Your task to perform on an android device: Search for acer nitro on ebay, select the first entry, and add it to the cart. Image 0: 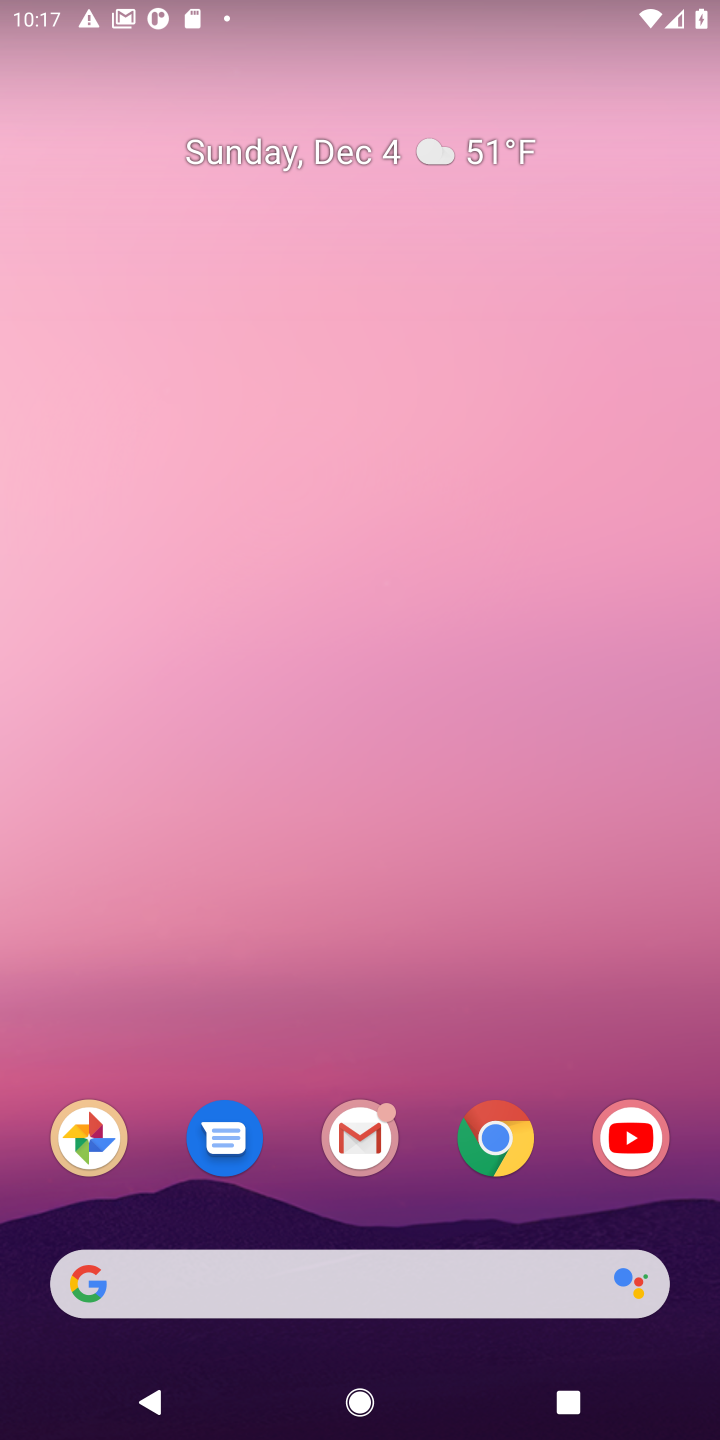
Step 0: click (501, 1123)
Your task to perform on an android device: Search for acer nitro on ebay, select the first entry, and add it to the cart. Image 1: 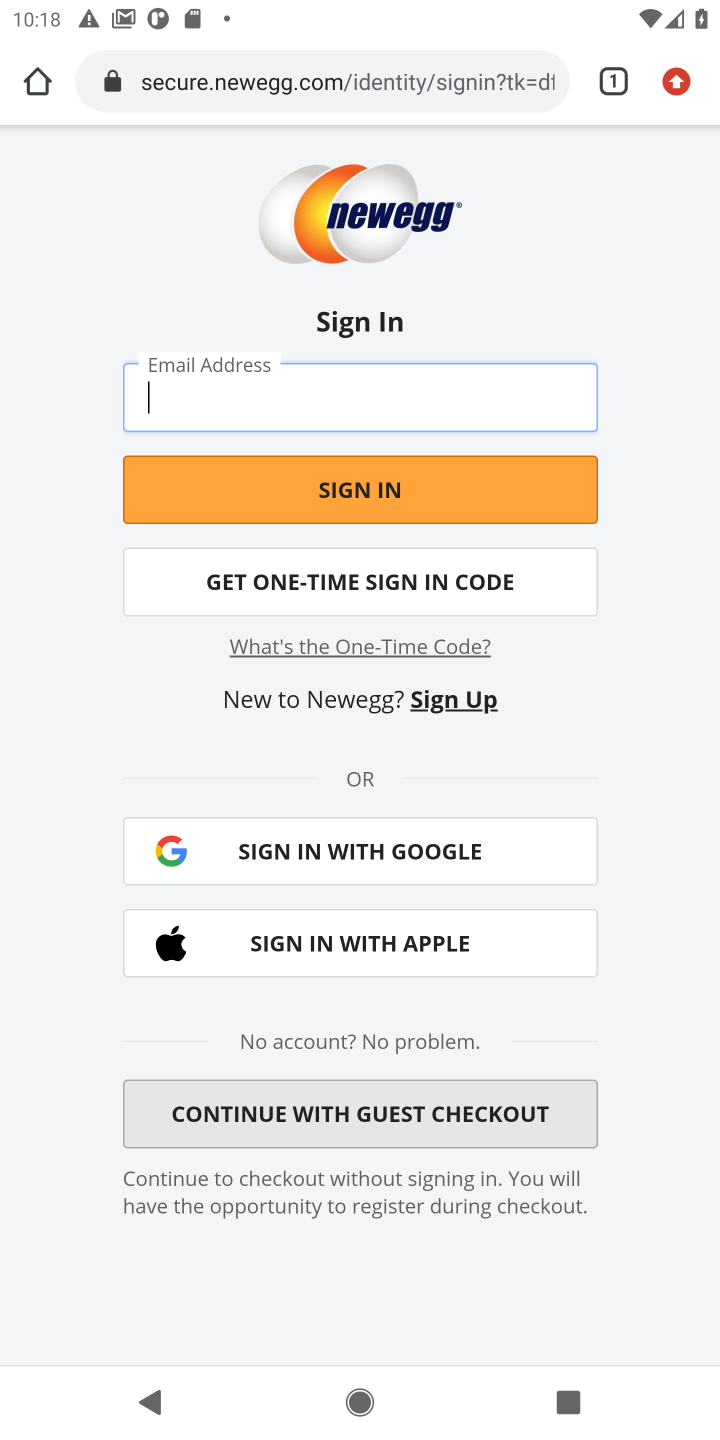
Step 1: click (474, 92)
Your task to perform on an android device: Search for acer nitro on ebay, select the first entry, and add it to the cart. Image 2: 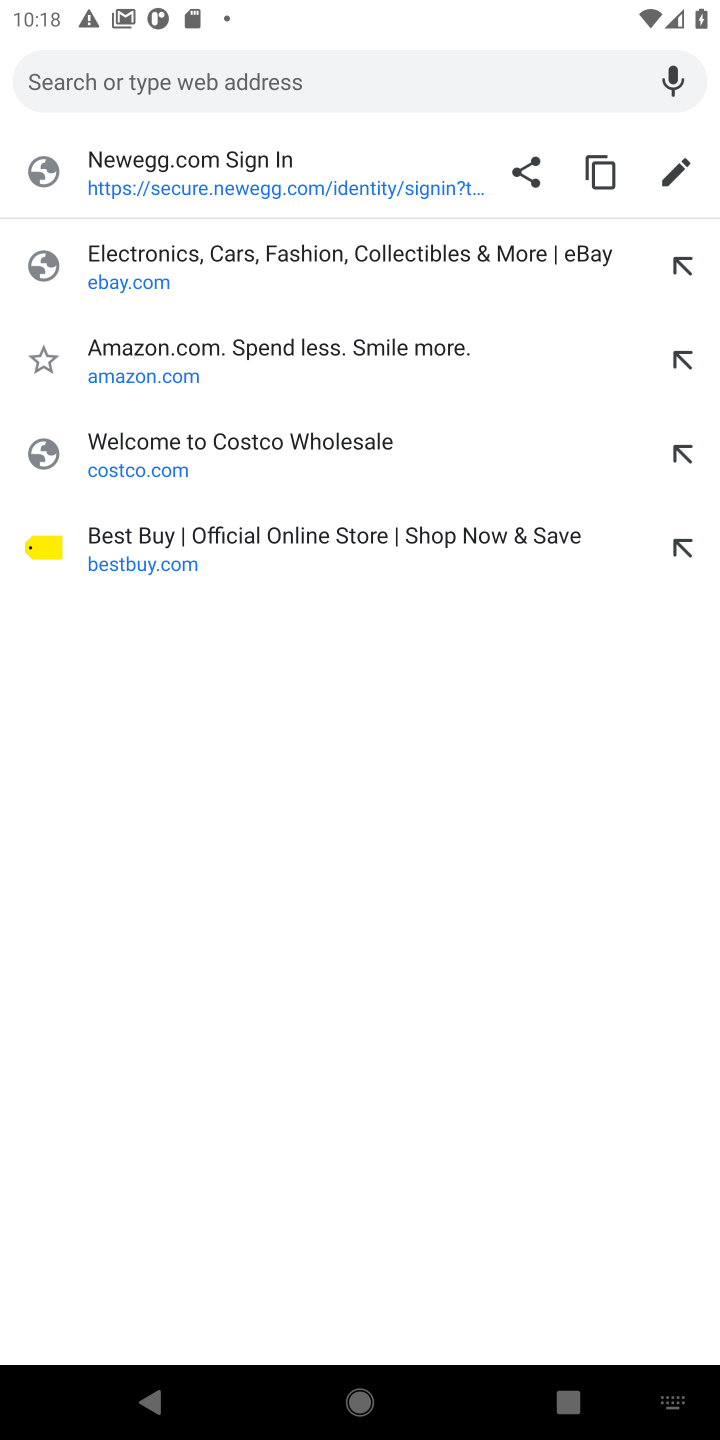
Step 2: click (204, 250)
Your task to perform on an android device: Search for acer nitro on ebay, select the first entry, and add it to the cart. Image 3: 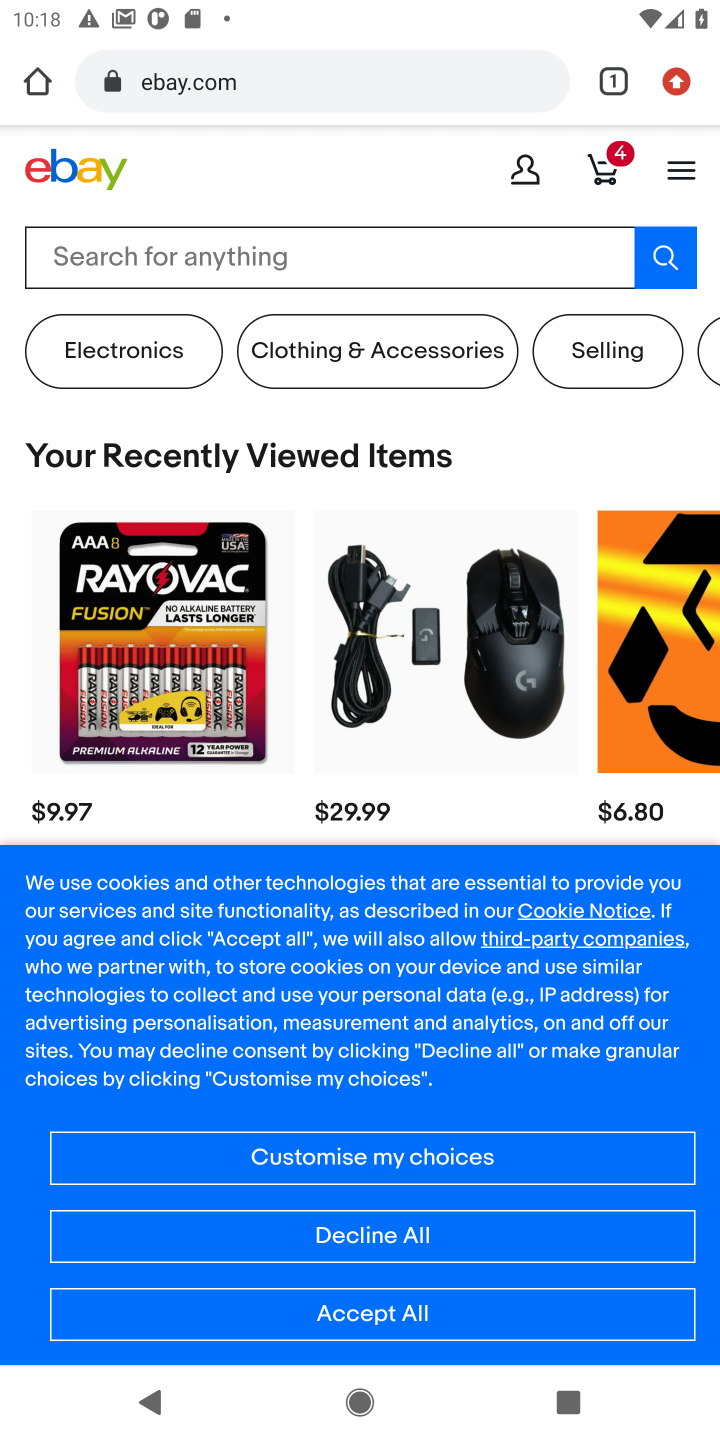
Step 3: click (492, 242)
Your task to perform on an android device: Search for acer nitro on ebay, select the first entry, and add it to the cart. Image 4: 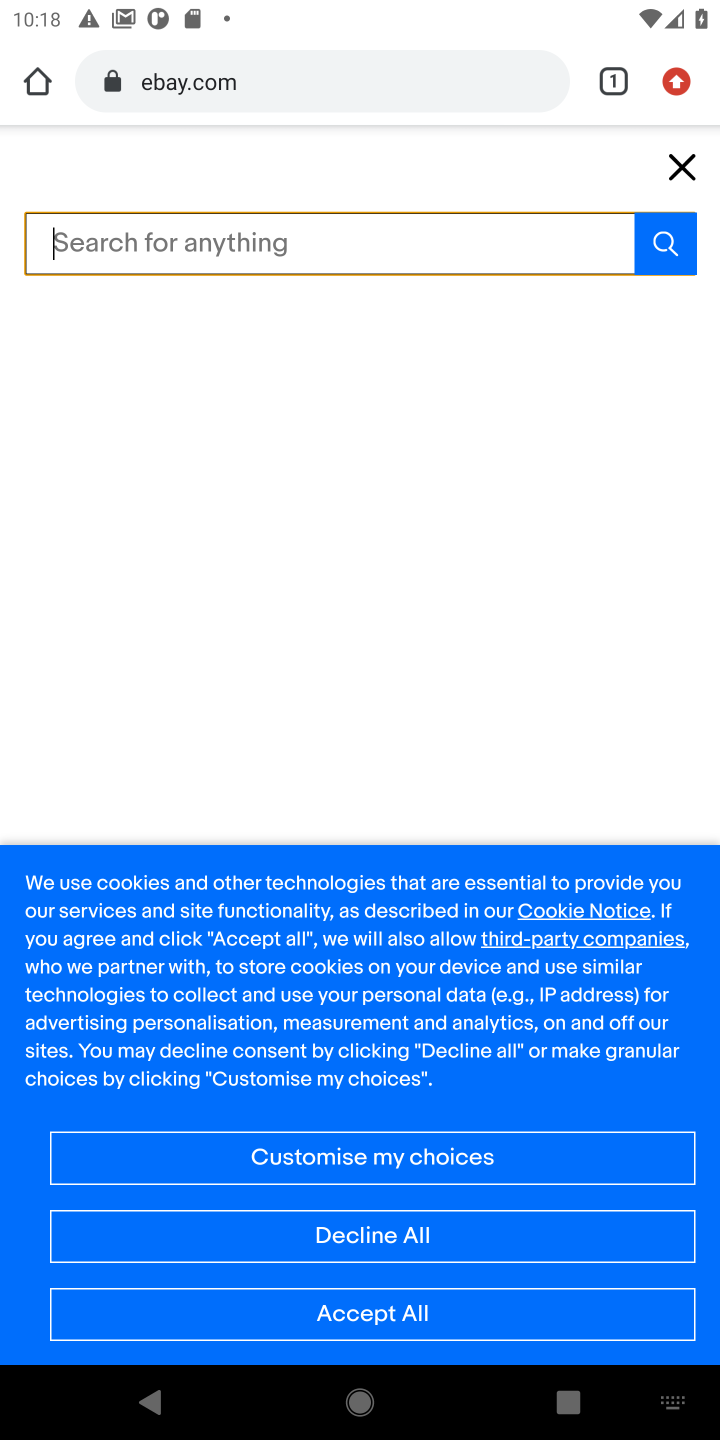
Step 4: type "acer nitro"
Your task to perform on an android device: Search for acer nitro on ebay, select the first entry, and add it to the cart. Image 5: 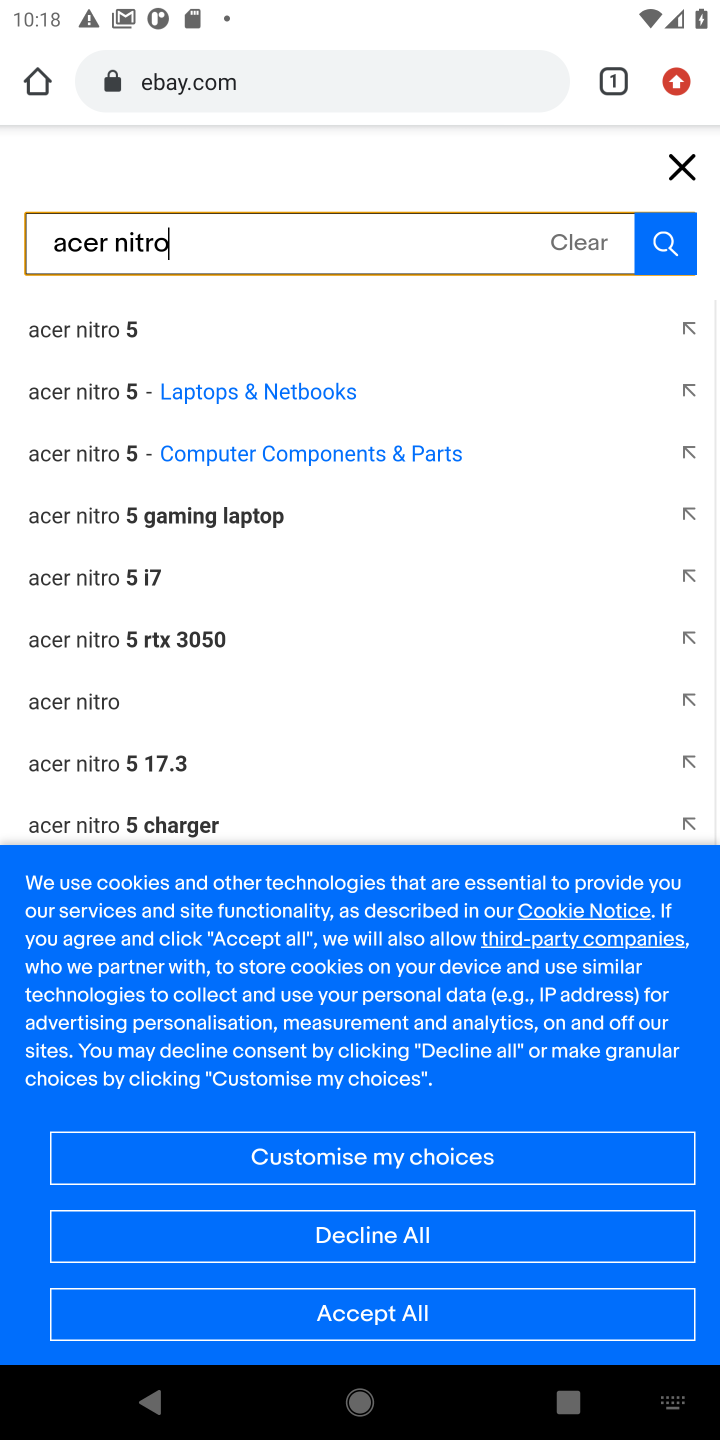
Step 5: press enter
Your task to perform on an android device: Search for acer nitro on ebay, select the first entry, and add it to the cart. Image 6: 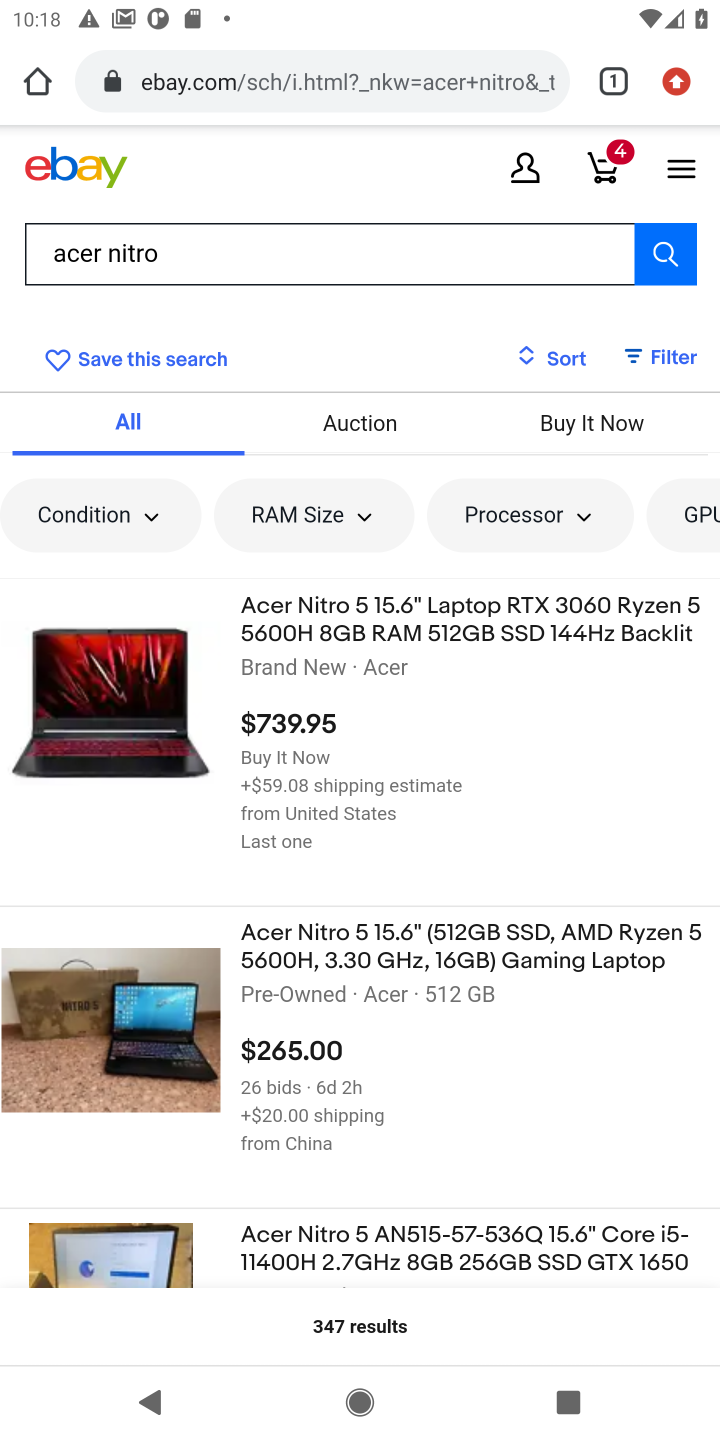
Step 6: click (133, 687)
Your task to perform on an android device: Search for acer nitro on ebay, select the first entry, and add it to the cart. Image 7: 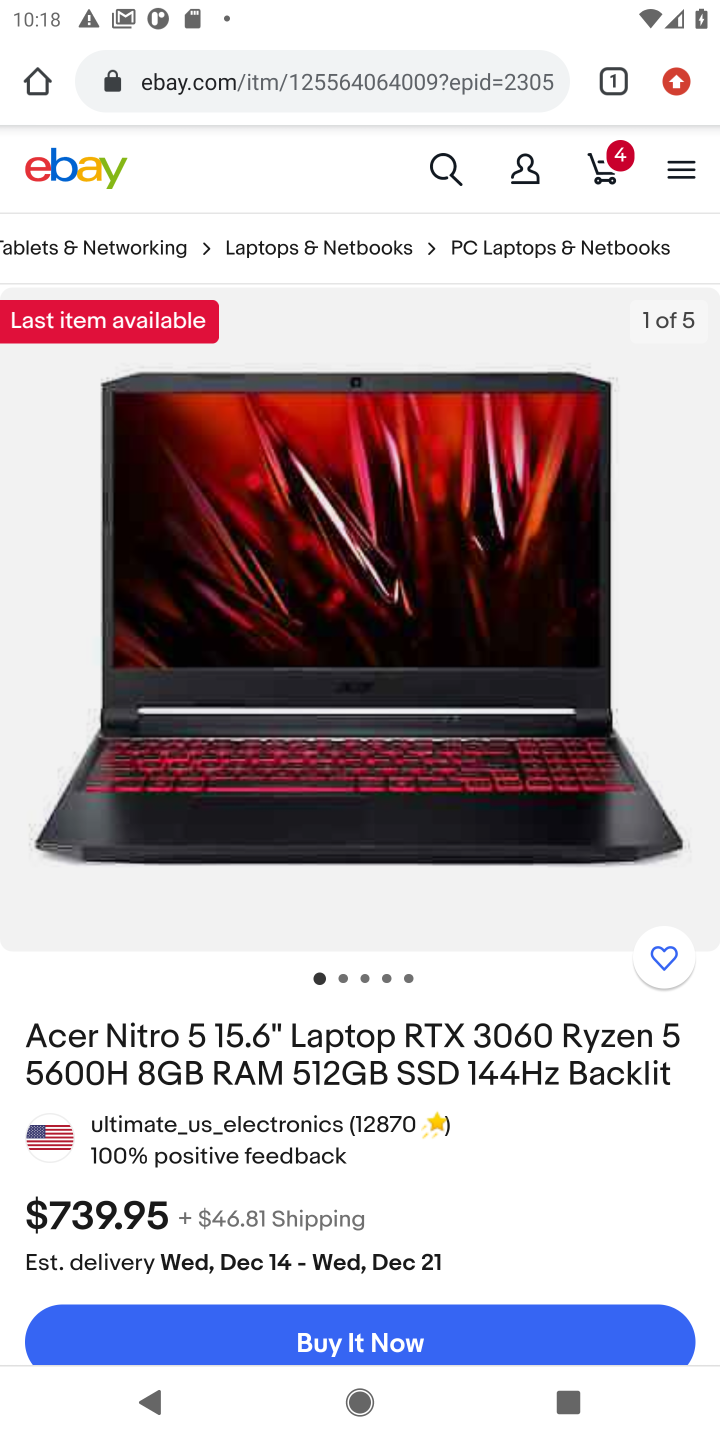
Step 7: drag from (552, 815) to (511, 650)
Your task to perform on an android device: Search for acer nitro on ebay, select the first entry, and add it to the cart. Image 8: 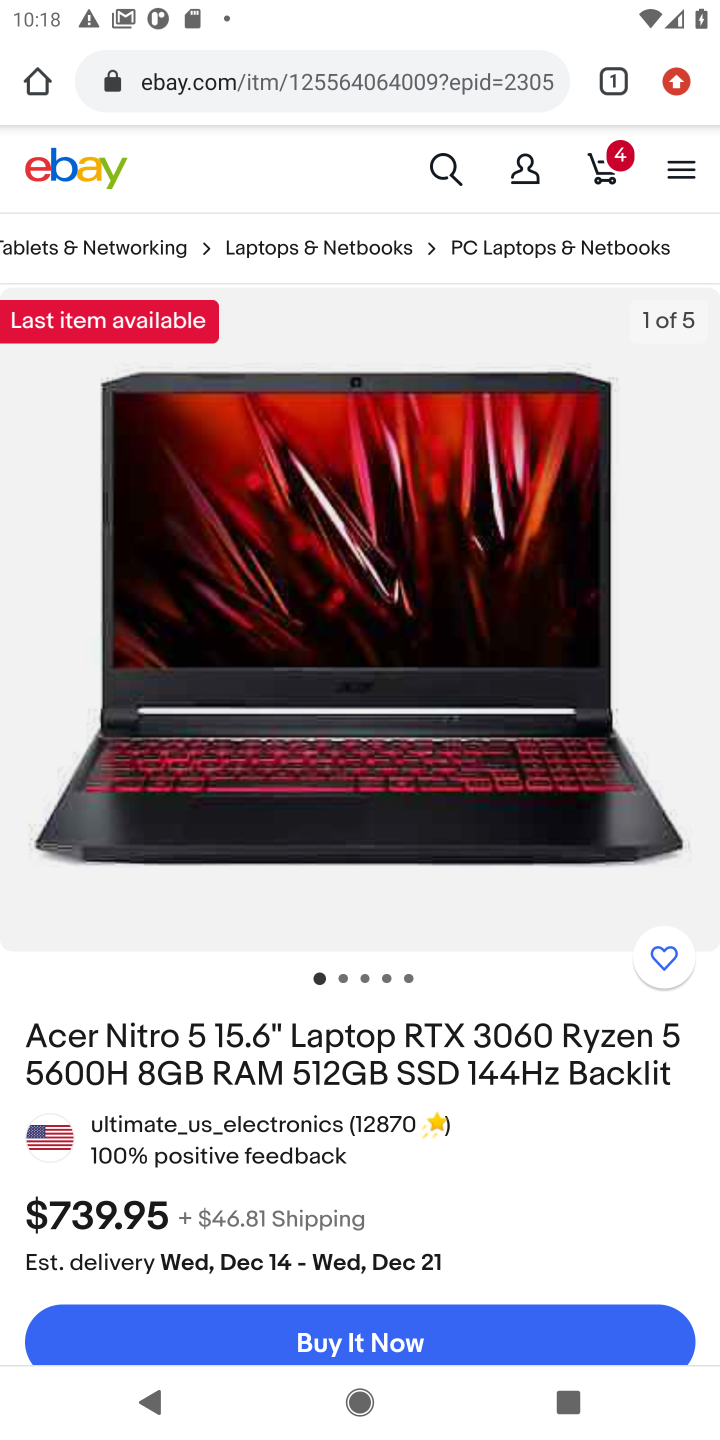
Step 8: drag from (531, 972) to (490, 679)
Your task to perform on an android device: Search for acer nitro on ebay, select the first entry, and add it to the cart. Image 9: 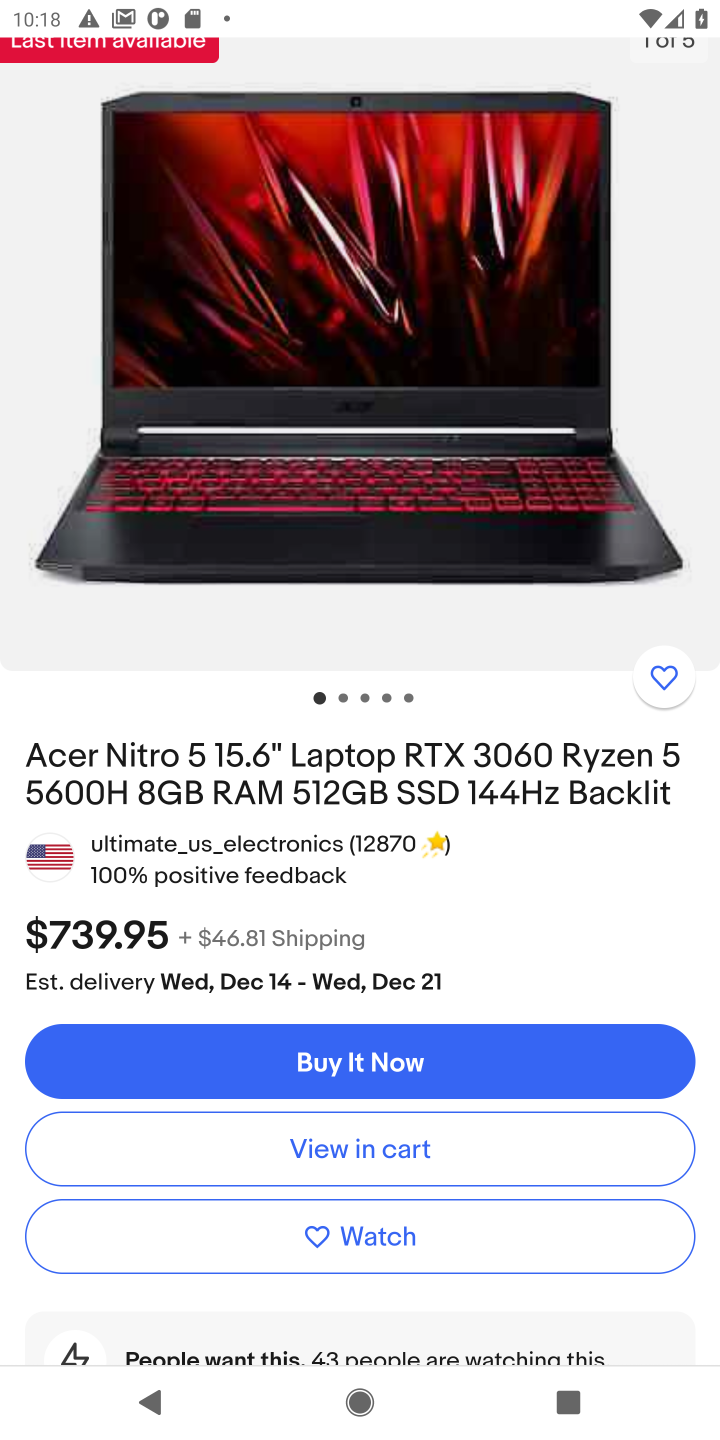
Step 9: press back button
Your task to perform on an android device: Search for acer nitro on ebay, select the first entry, and add it to the cart. Image 10: 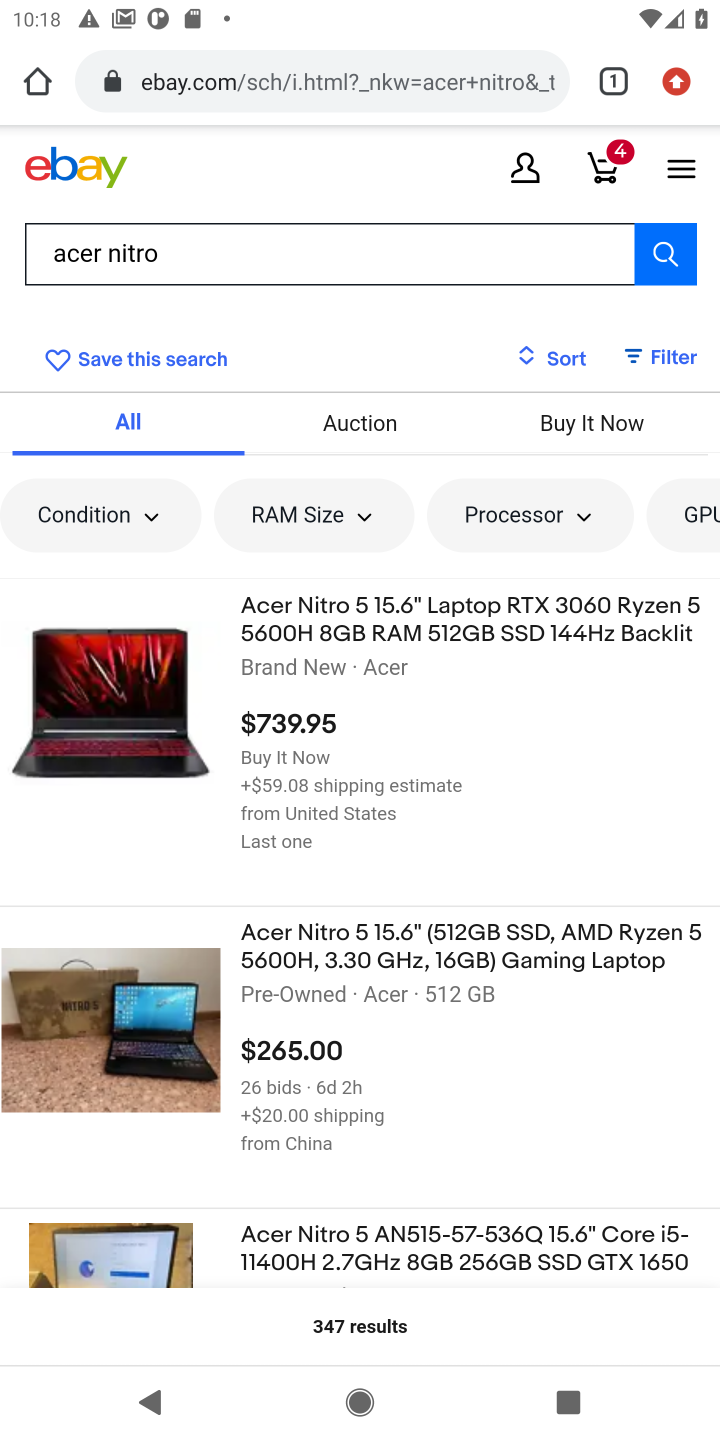
Step 10: click (93, 1005)
Your task to perform on an android device: Search for acer nitro on ebay, select the first entry, and add it to the cart. Image 11: 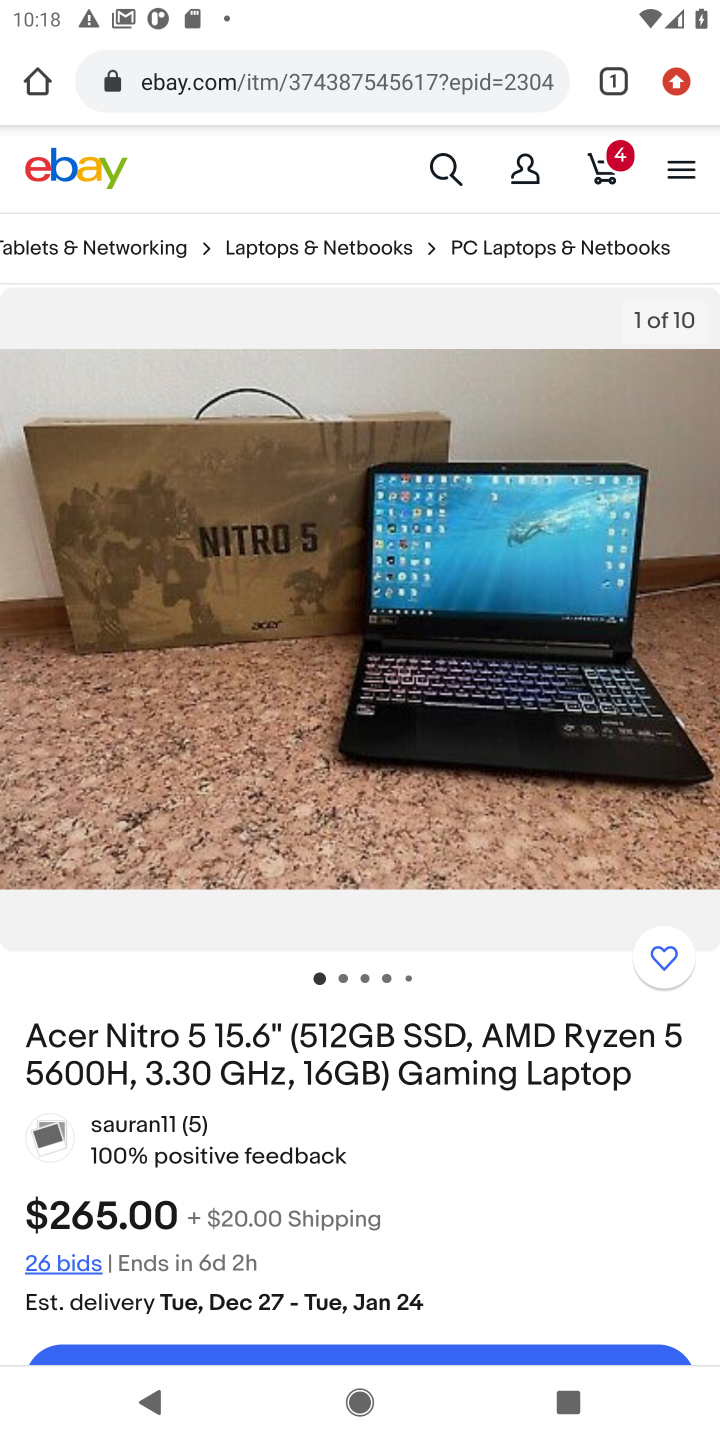
Step 11: drag from (463, 840) to (493, 657)
Your task to perform on an android device: Search for acer nitro on ebay, select the first entry, and add it to the cart. Image 12: 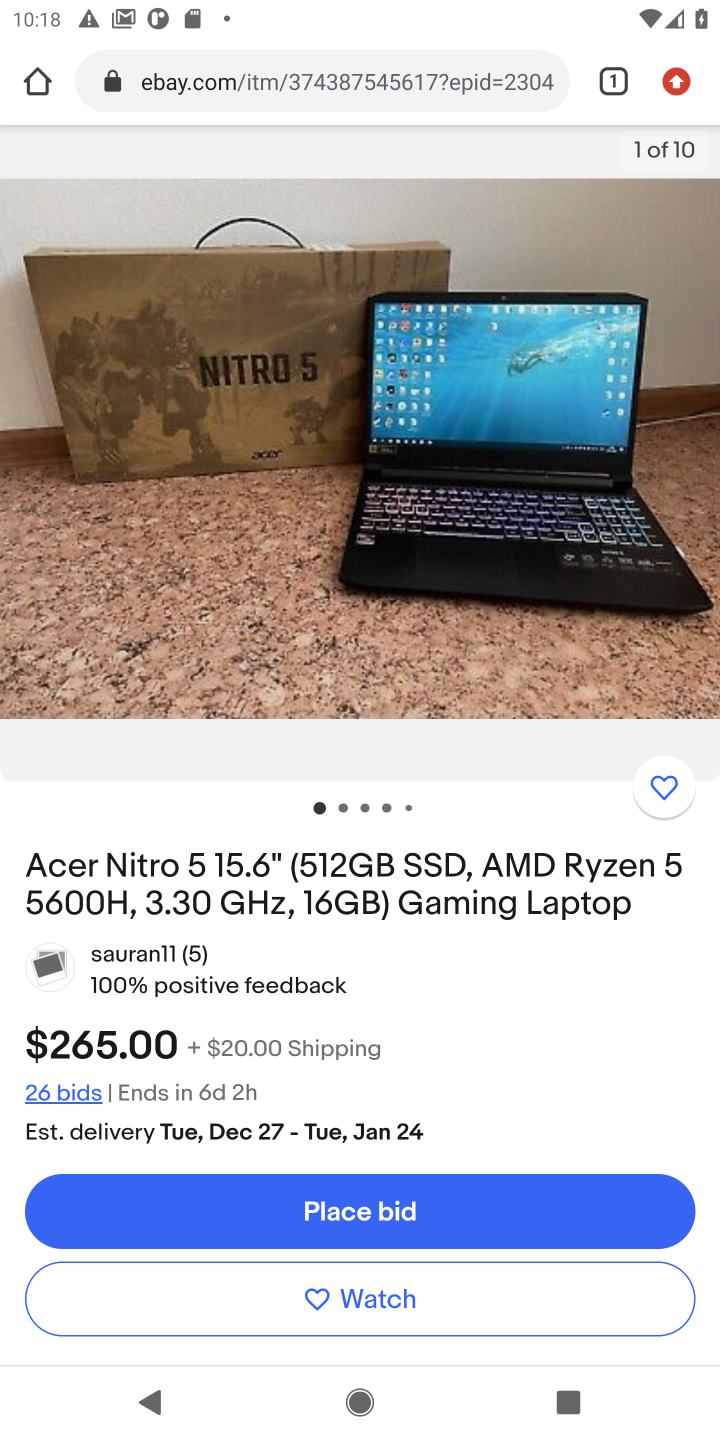
Step 12: press back button
Your task to perform on an android device: Search for acer nitro on ebay, select the first entry, and add it to the cart. Image 13: 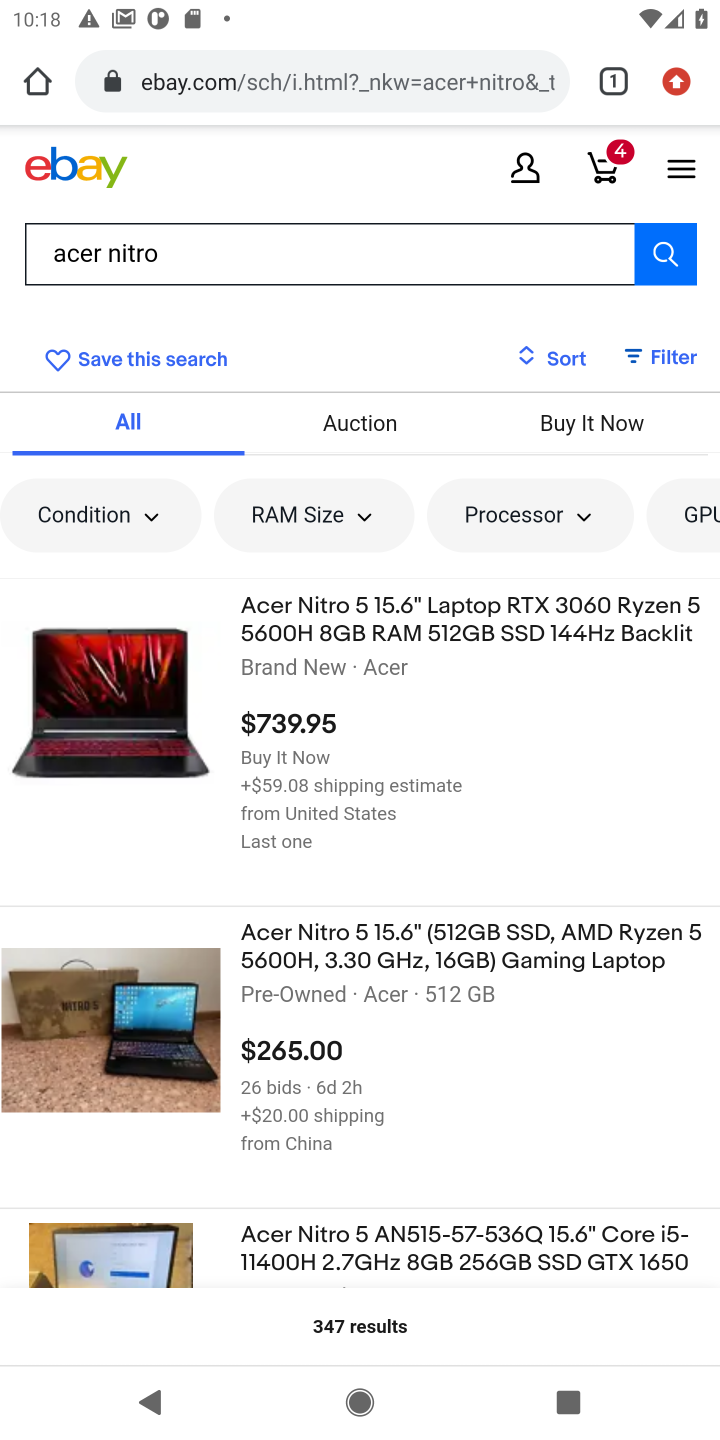
Step 13: drag from (513, 1077) to (519, 558)
Your task to perform on an android device: Search for acer nitro on ebay, select the first entry, and add it to the cart. Image 14: 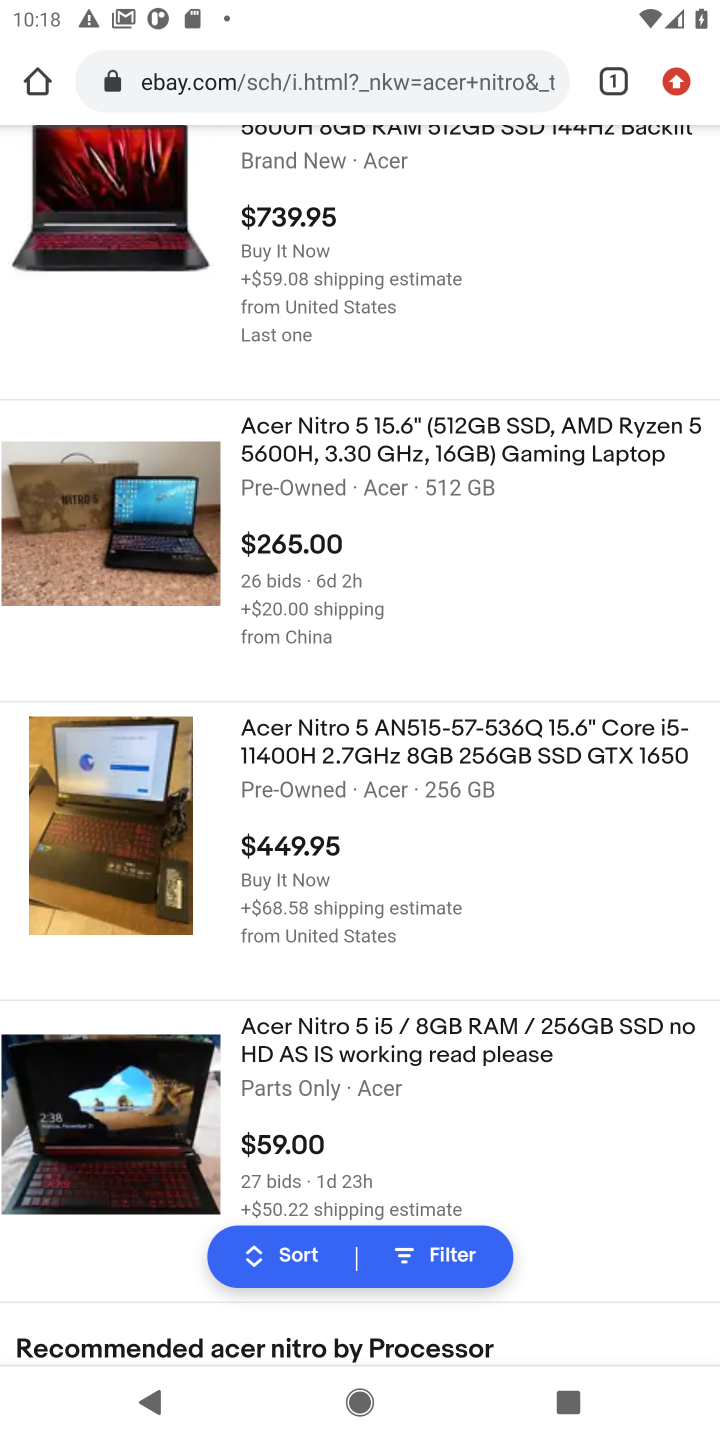
Step 14: click (129, 826)
Your task to perform on an android device: Search for acer nitro on ebay, select the first entry, and add it to the cart. Image 15: 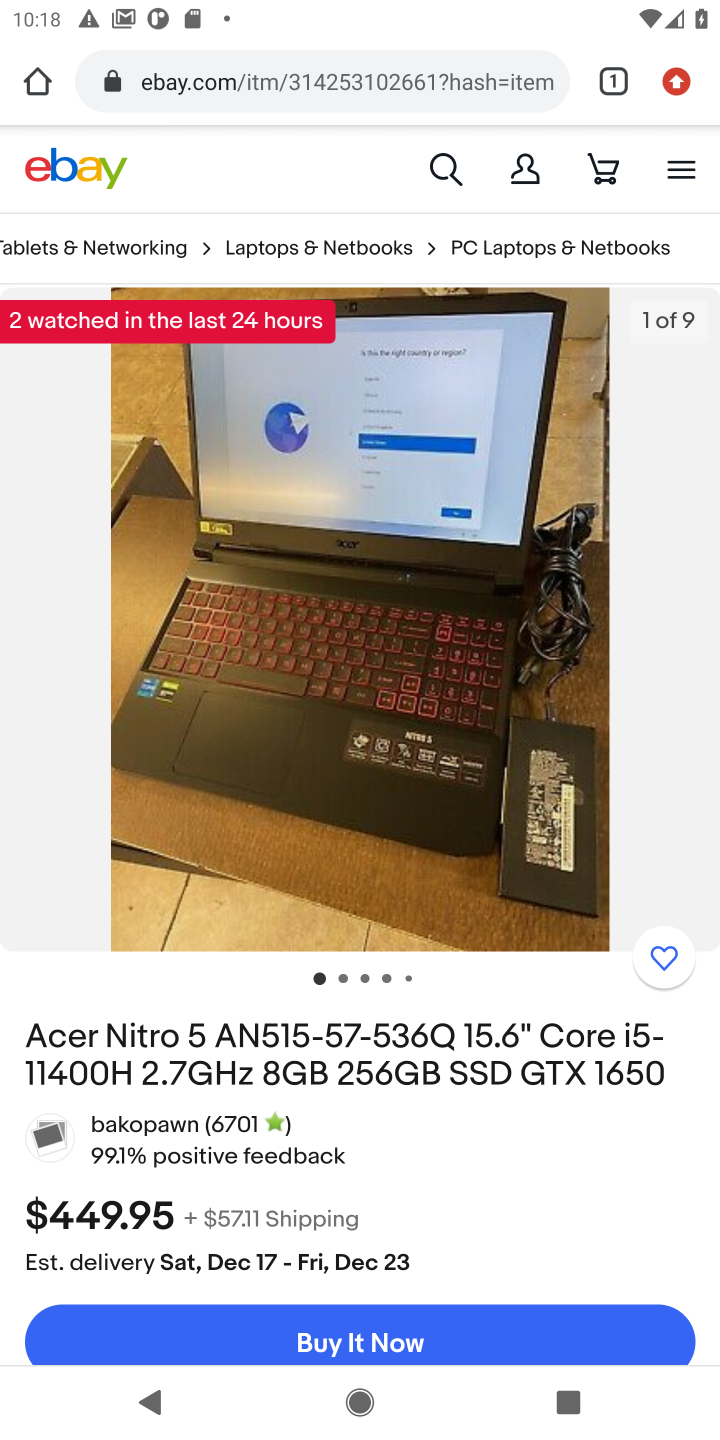
Step 15: drag from (622, 1151) to (526, 670)
Your task to perform on an android device: Search for acer nitro on ebay, select the first entry, and add it to the cart. Image 16: 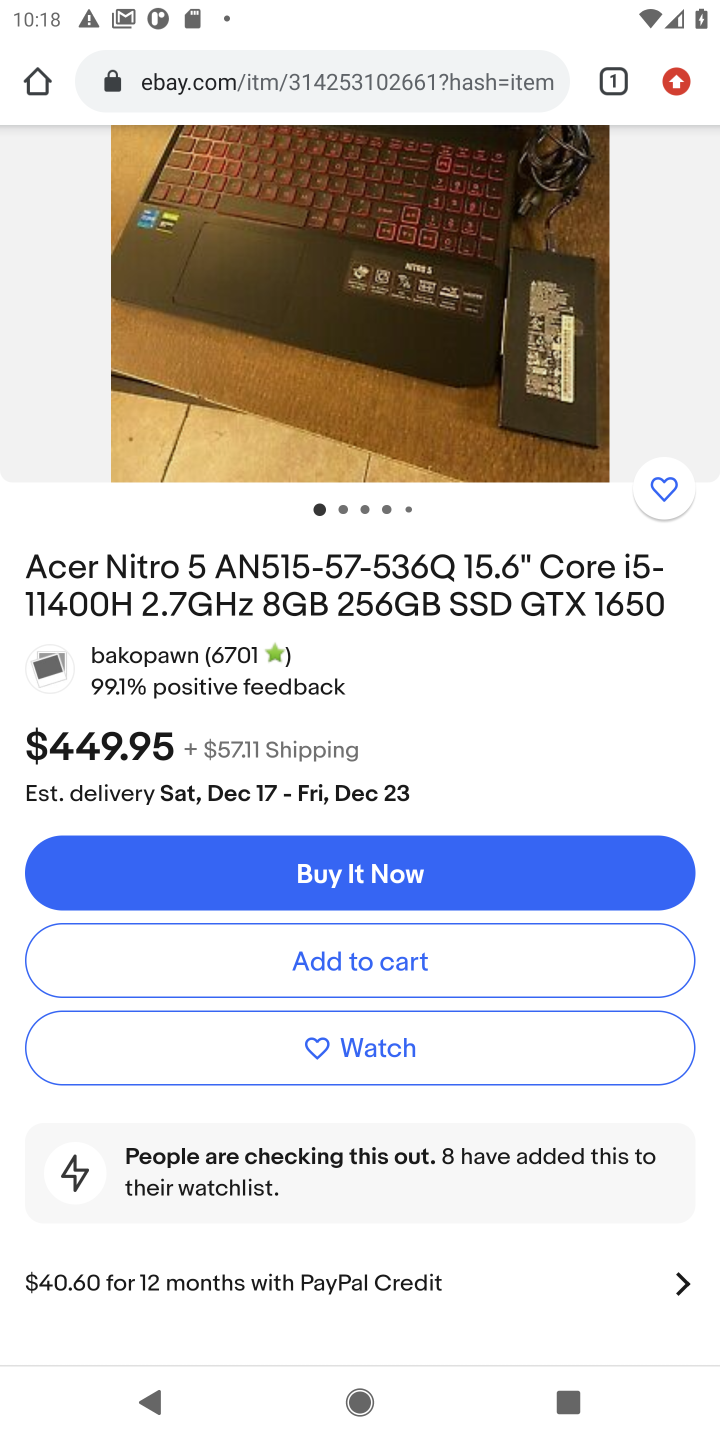
Step 16: click (346, 969)
Your task to perform on an android device: Search for acer nitro on ebay, select the first entry, and add it to the cart. Image 17: 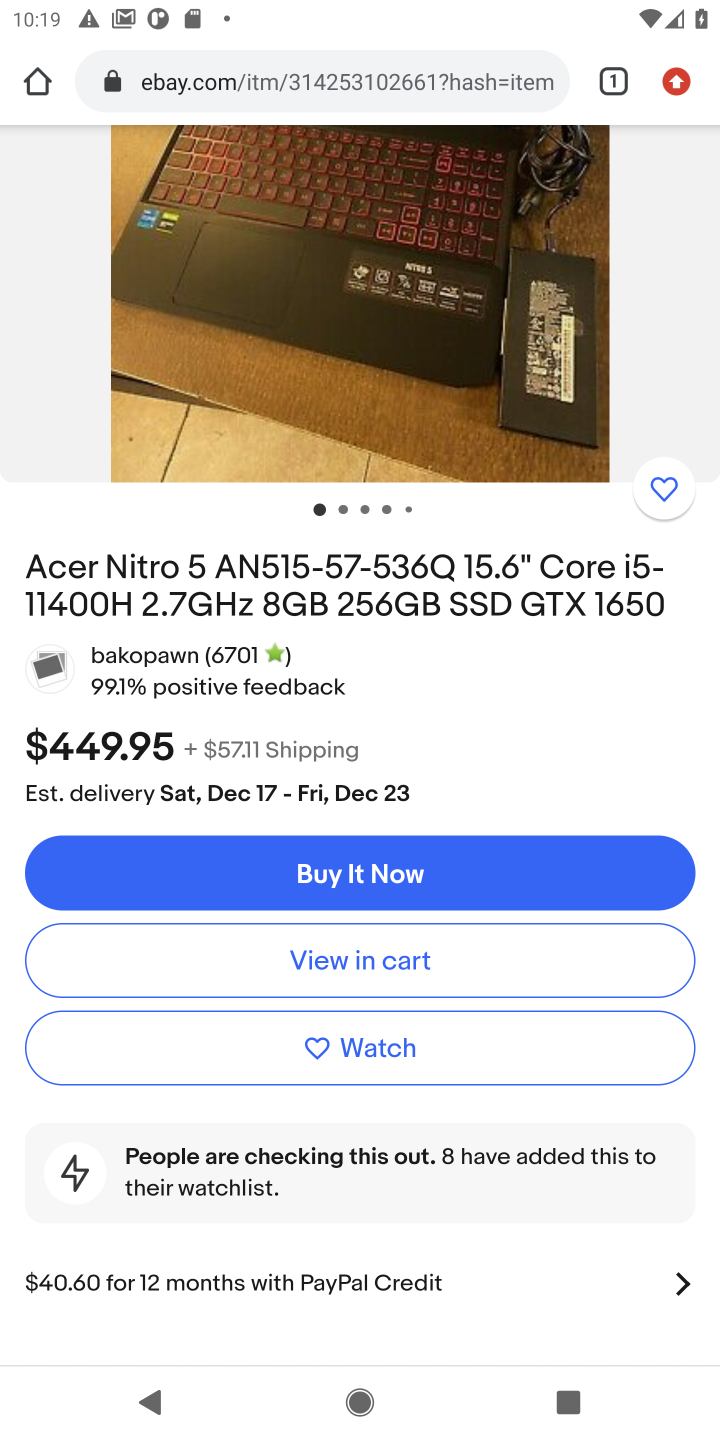
Step 17: click (346, 969)
Your task to perform on an android device: Search for acer nitro on ebay, select the first entry, and add it to the cart. Image 18: 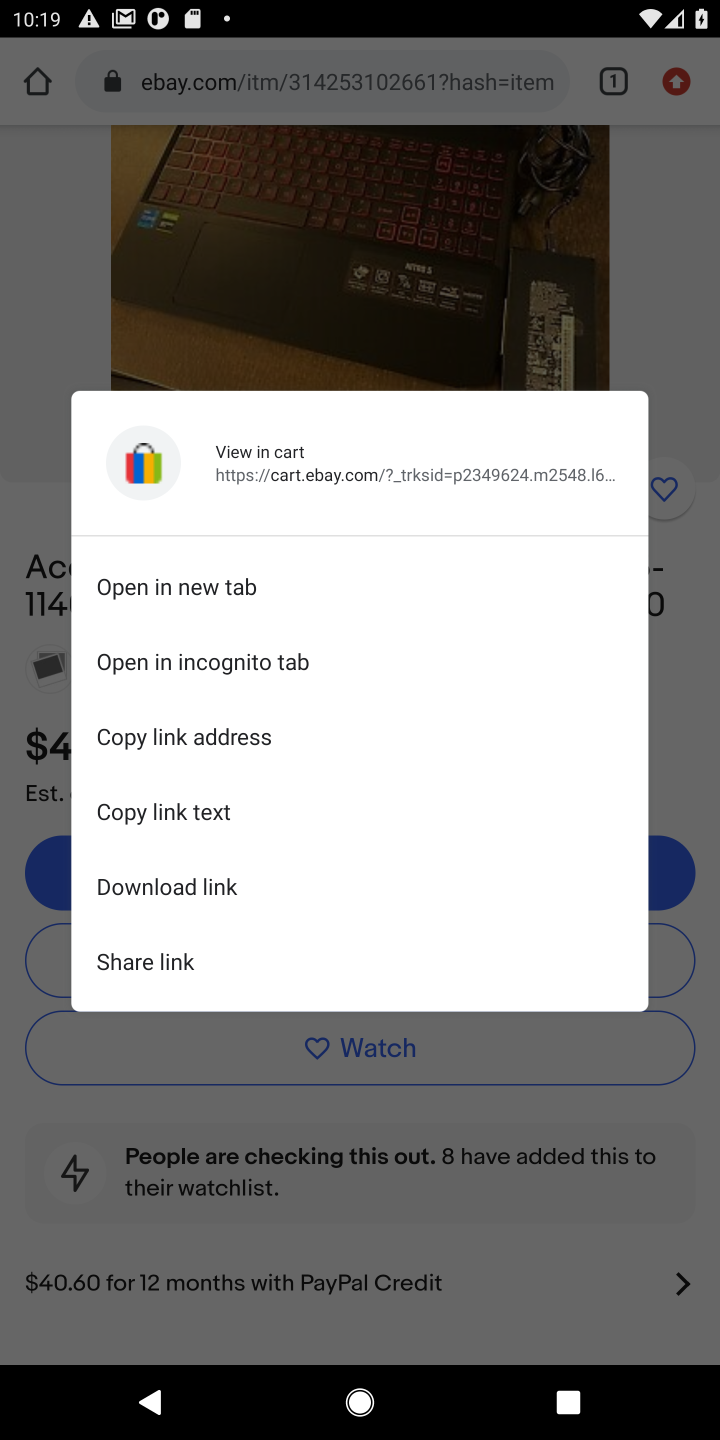
Step 18: click (668, 971)
Your task to perform on an android device: Search for acer nitro on ebay, select the first entry, and add it to the cart. Image 19: 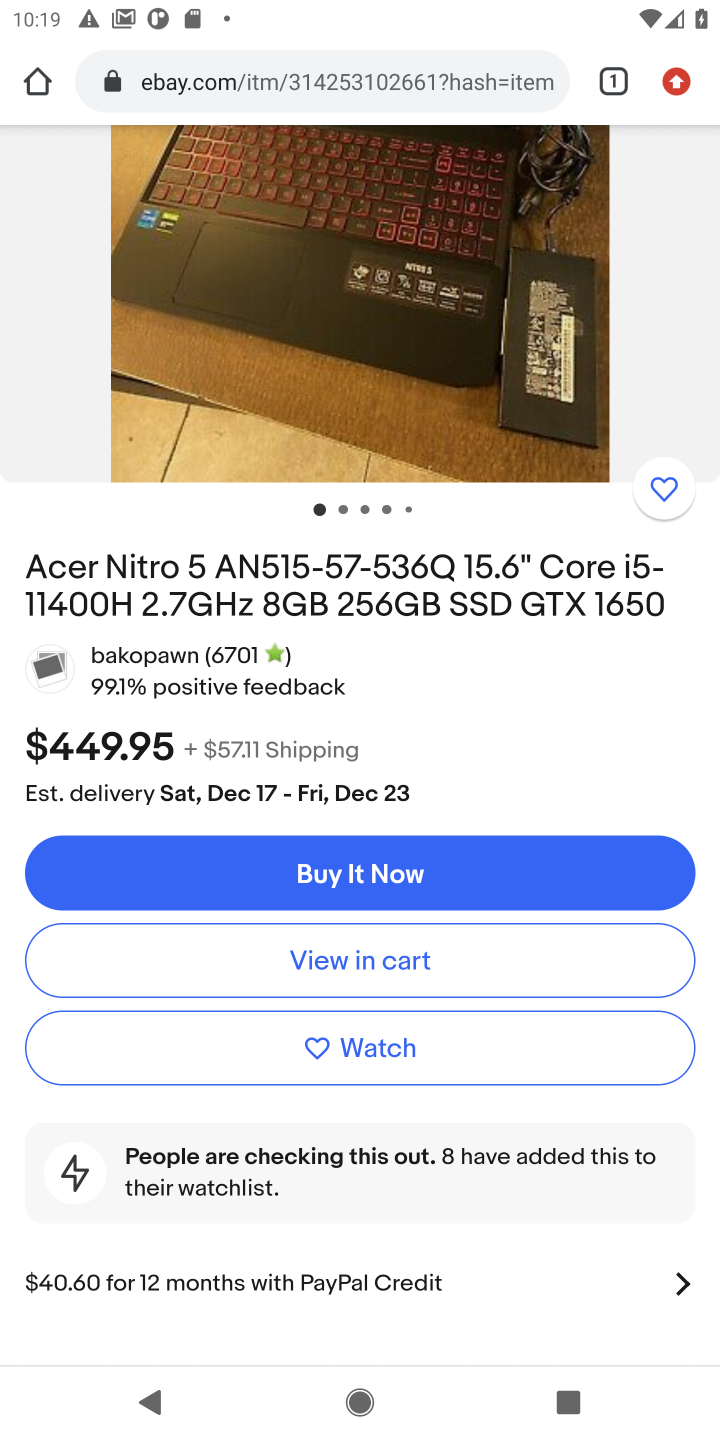
Step 19: click (384, 960)
Your task to perform on an android device: Search for acer nitro on ebay, select the first entry, and add it to the cart. Image 20: 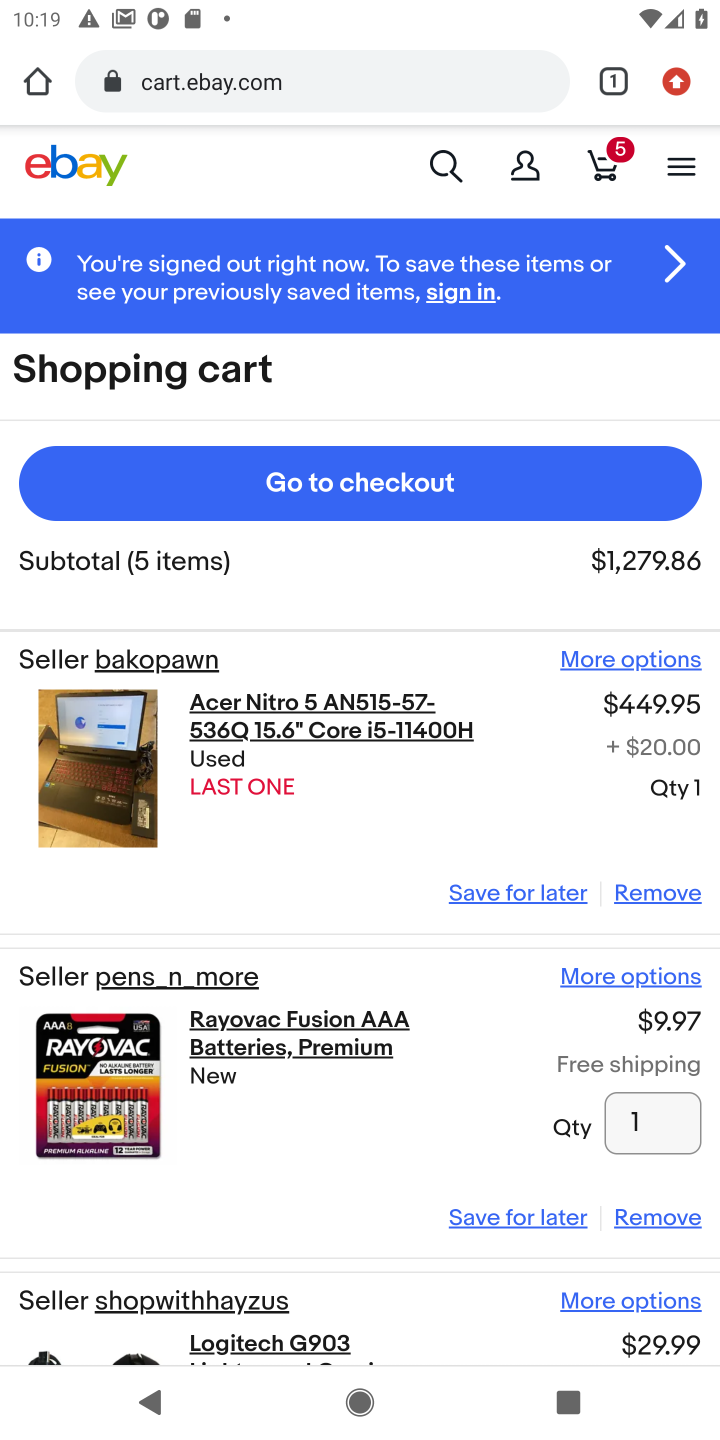
Step 20: task complete